Your task to perform on an android device: Open Google Image 0: 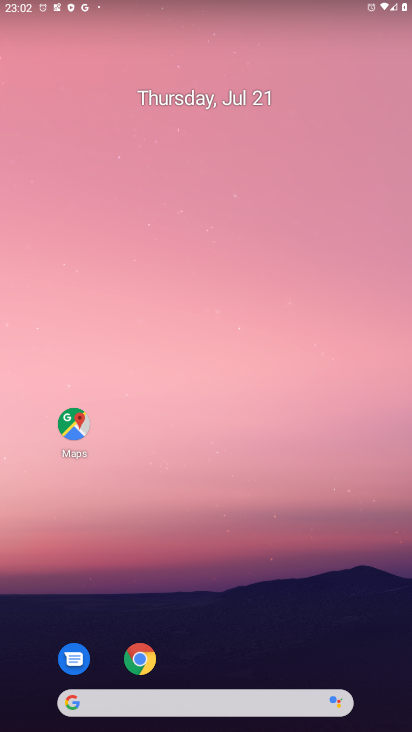
Step 0: drag from (197, 701) to (279, 77)
Your task to perform on an android device: Open Google Image 1: 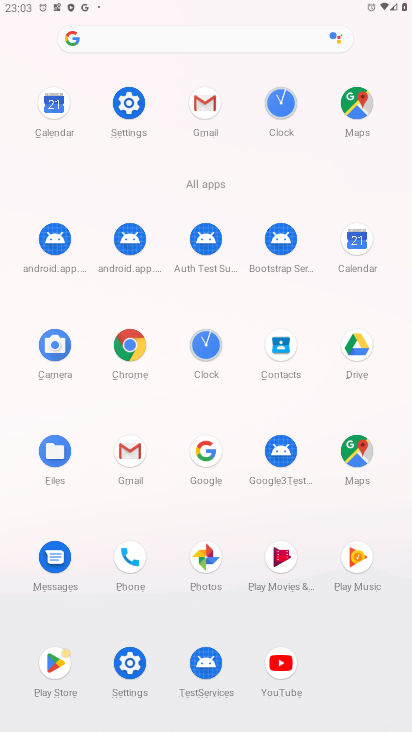
Step 1: click (205, 453)
Your task to perform on an android device: Open Google Image 2: 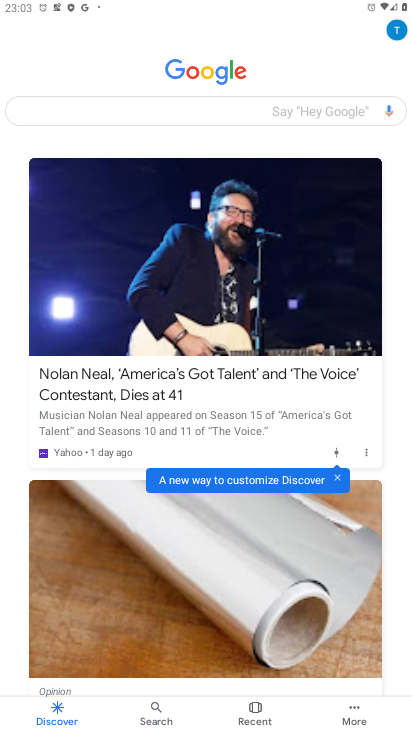
Step 2: task complete